Your task to perform on an android device: refresh tabs in the chrome app Image 0: 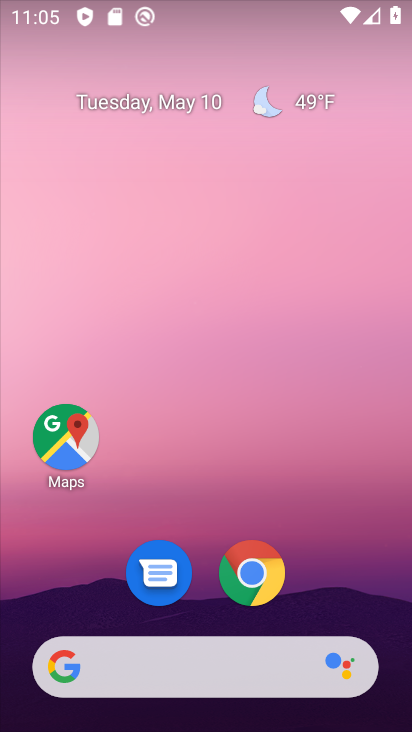
Step 0: press home button
Your task to perform on an android device: refresh tabs in the chrome app Image 1: 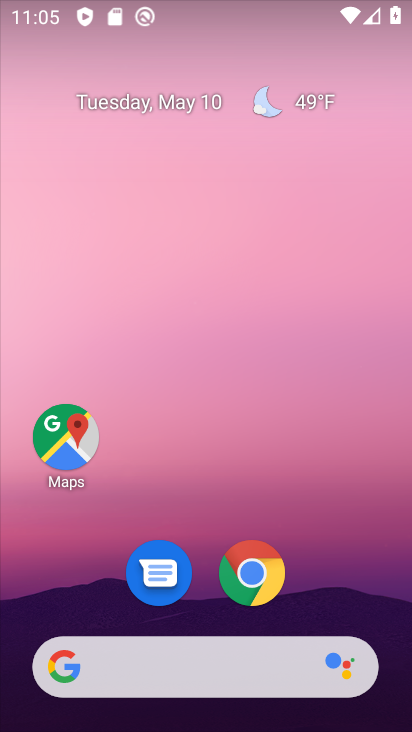
Step 1: drag from (145, 667) to (295, 225)
Your task to perform on an android device: refresh tabs in the chrome app Image 2: 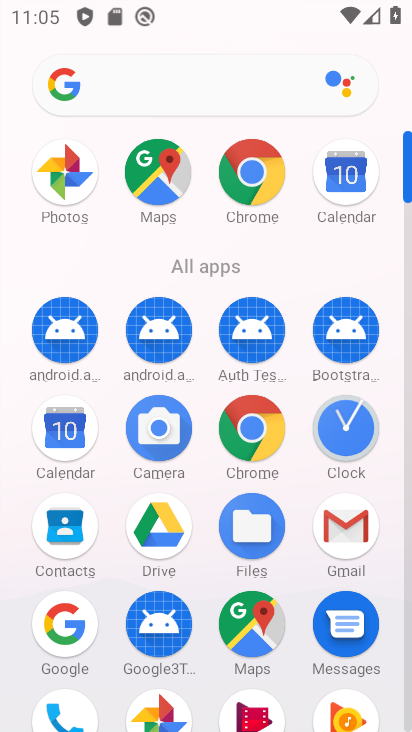
Step 2: click (253, 191)
Your task to perform on an android device: refresh tabs in the chrome app Image 3: 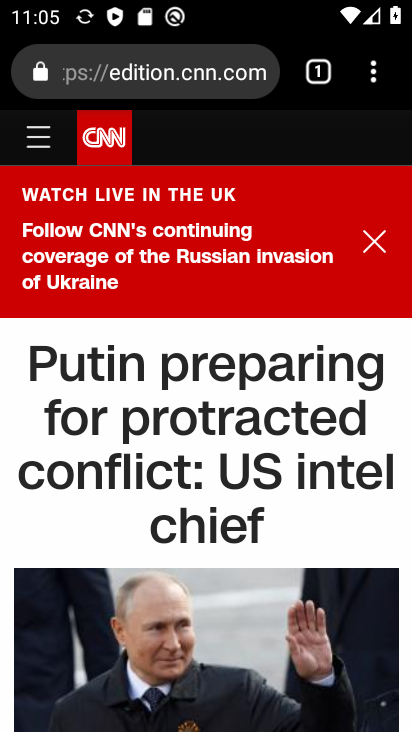
Step 3: click (370, 98)
Your task to perform on an android device: refresh tabs in the chrome app Image 4: 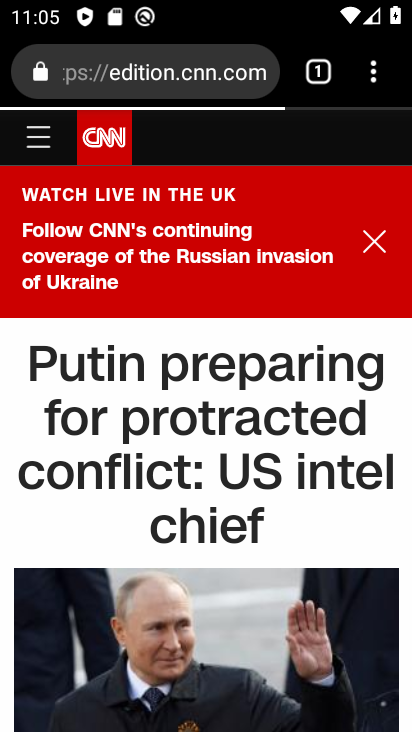
Step 4: click (362, 100)
Your task to perform on an android device: refresh tabs in the chrome app Image 5: 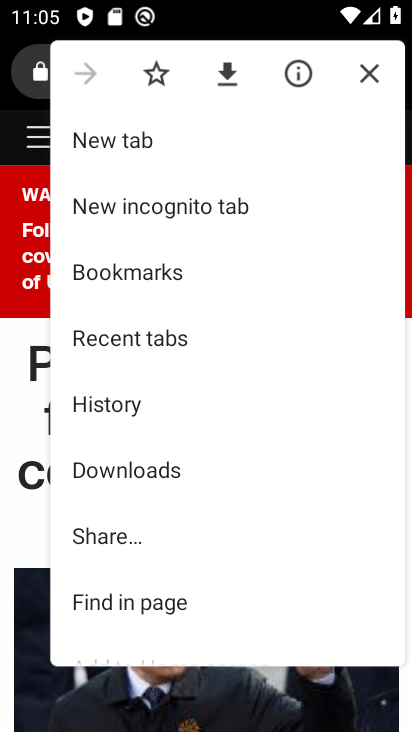
Step 5: click (367, 75)
Your task to perform on an android device: refresh tabs in the chrome app Image 6: 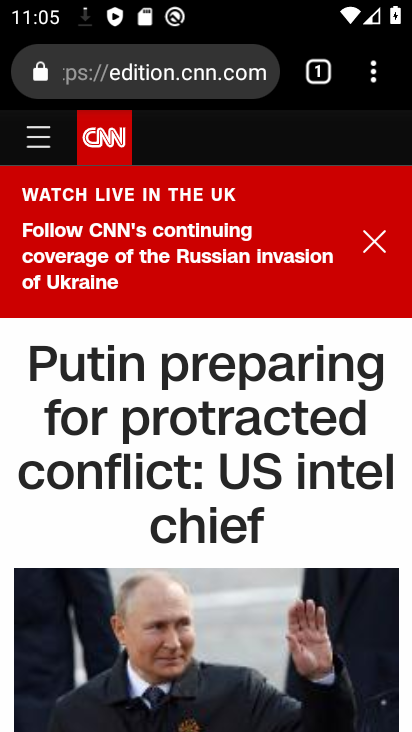
Step 6: click (367, 98)
Your task to perform on an android device: refresh tabs in the chrome app Image 7: 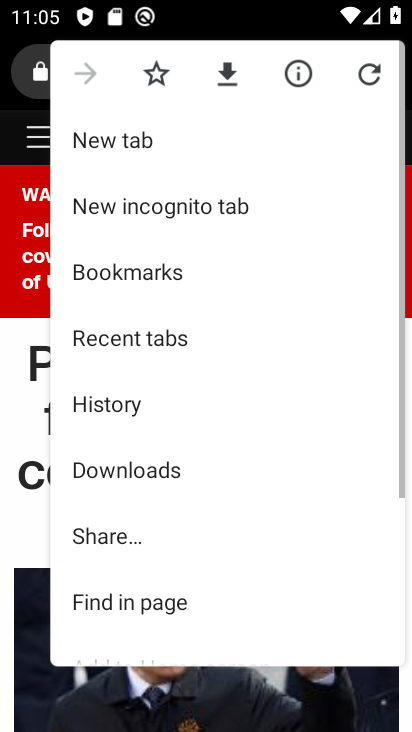
Step 7: click (365, 84)
Your task to perform on an android device: refresh tabs in the chrome app Image 8: 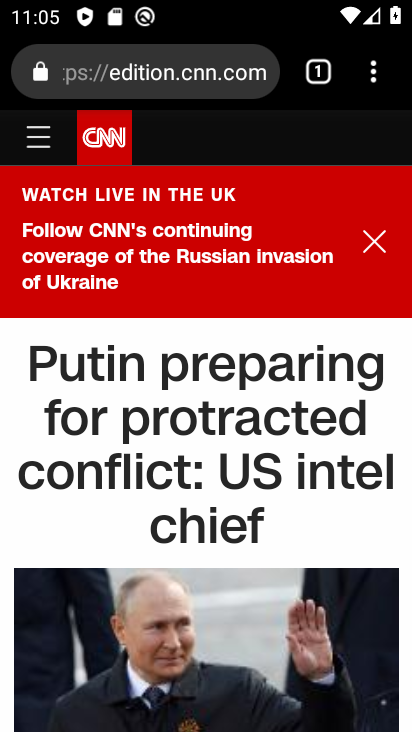
Step 8: task complete